Your task to perform on an android device: delete location history Image 0: 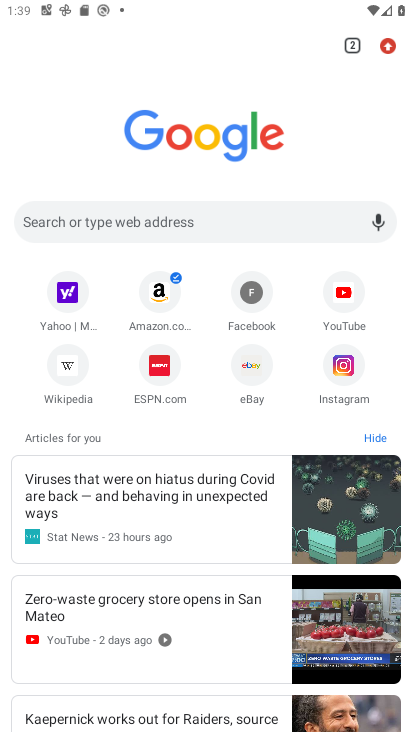
Step 0: press home button
Your task to perform on an android device: delete location history Image 1: 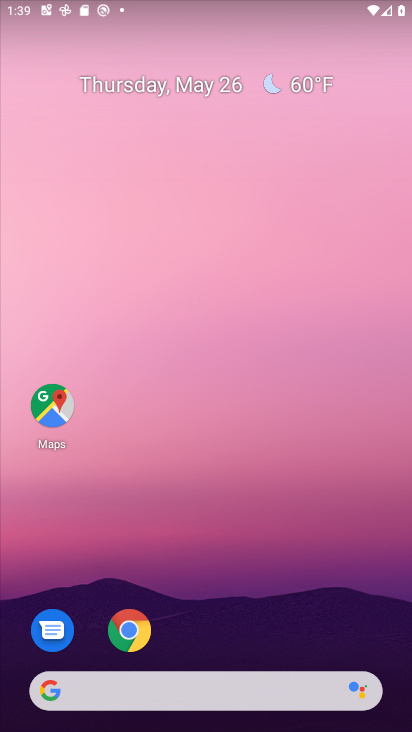
Step 1: drag from (347, 529) to (394, 71)
Your task to perform on an android device: delete location history Image 2: 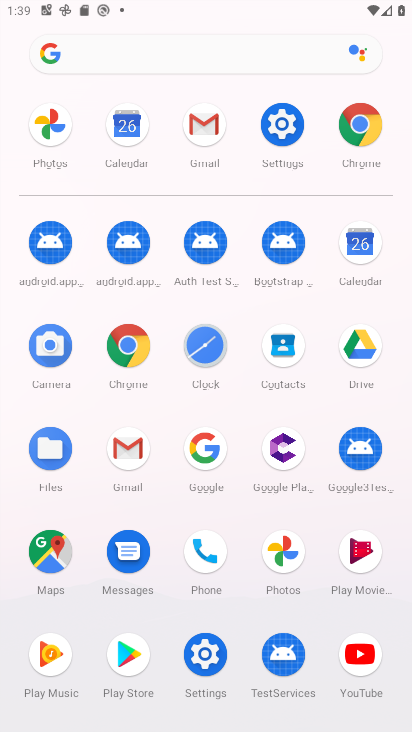
Step 2: drag from (388, 513) to (393, 297)
Your task to perform on an android device: delete location history Image 3: 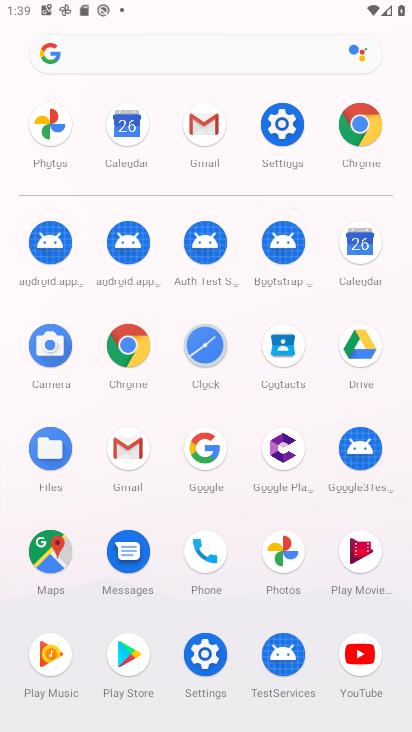
Step 3: click (54, 550)
Your task to perform on an android device: delete location history Image 4: 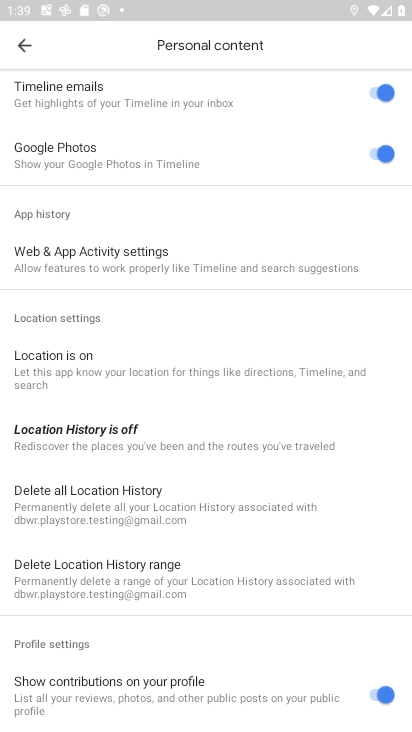
Step 4: drag from (183, 154) to (189, 656)
Your task to perform on an android device: delete location history Image 5: 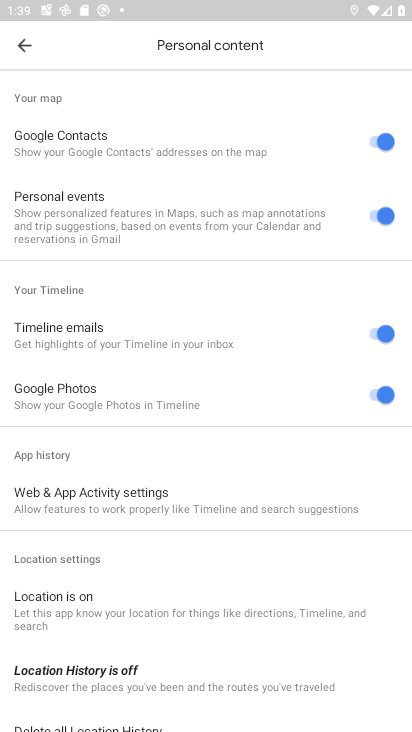
Step 5: drag from (226, 255) to (210, 688)
Your task to perform on an android device: delete location history Image 6: 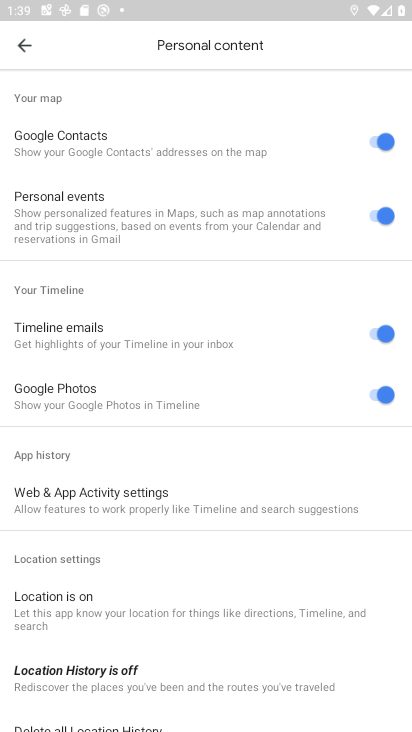
Step 6: click (20, 41)
Your task to perform on an android device: delete location history Image 7: 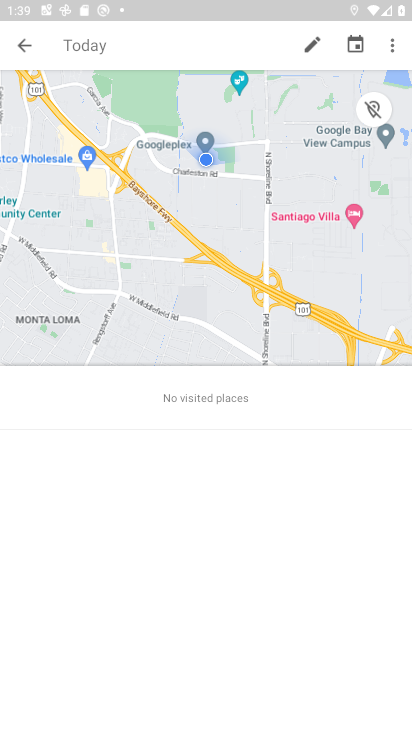
Step 7: click (388, 42)
Your task to perform on an android device: delete location history Image 8: 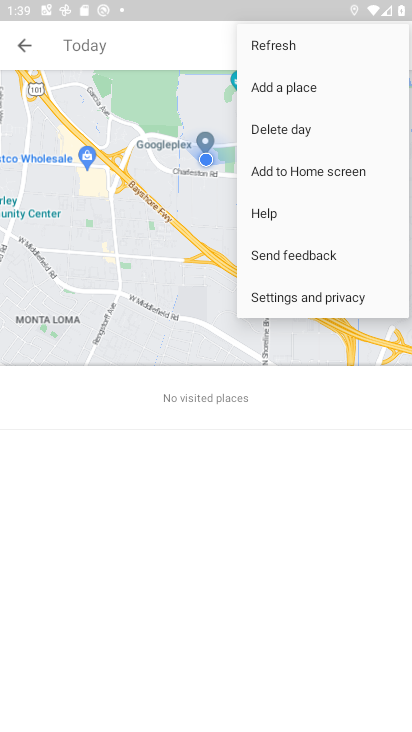
Step 8: click (267, 301)
Your task to perform on an android device: delete location history Image 9: 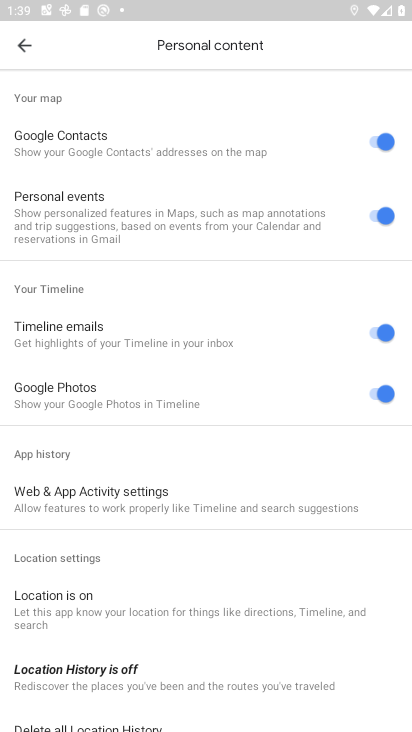
Step 9: drag from (212, 643) to (236, 251)
Your task to perform on an android device: delete location history Image 10: 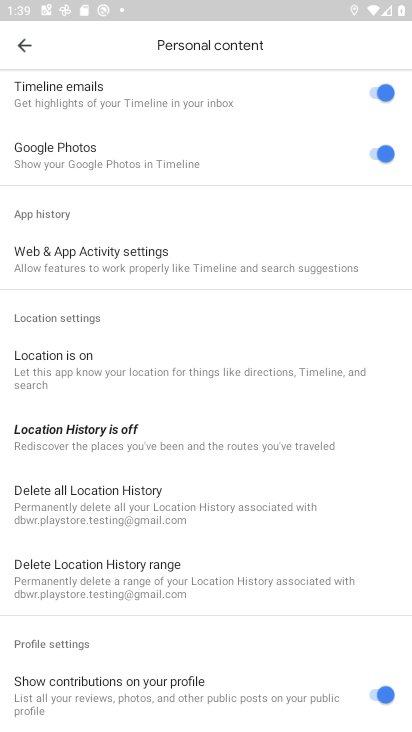
Step 10: click (132, 509)
Your task to perform on an android device: delete location history Image 11: 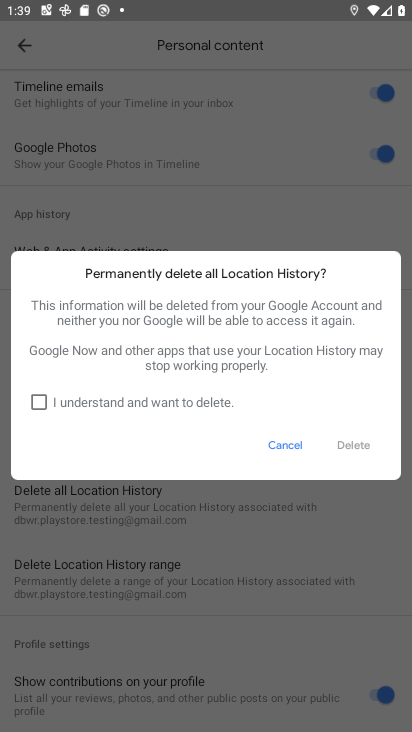
Step 11: click (39, 402)
Your task to perform on an android device: delete location history Image 12: 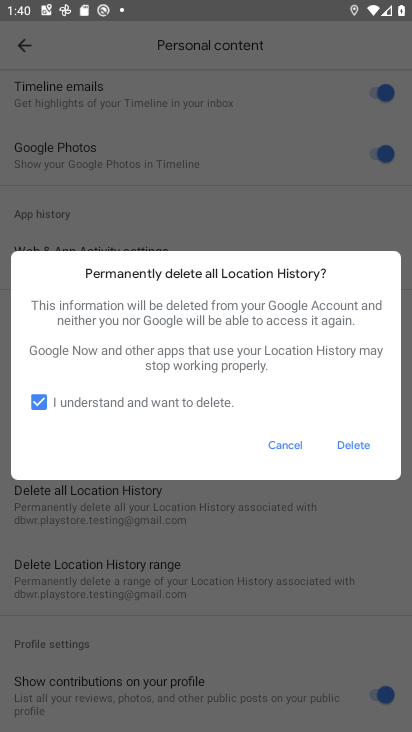
Step 12: click (352, 447)
Your task to perform on an android device: delete location history Image 13: 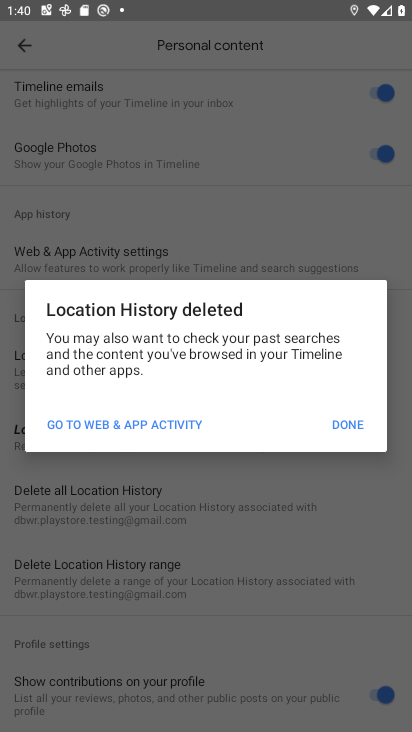
Step 13: click (352, 429)
Your task to perform on an android device: delete location history Image 14: 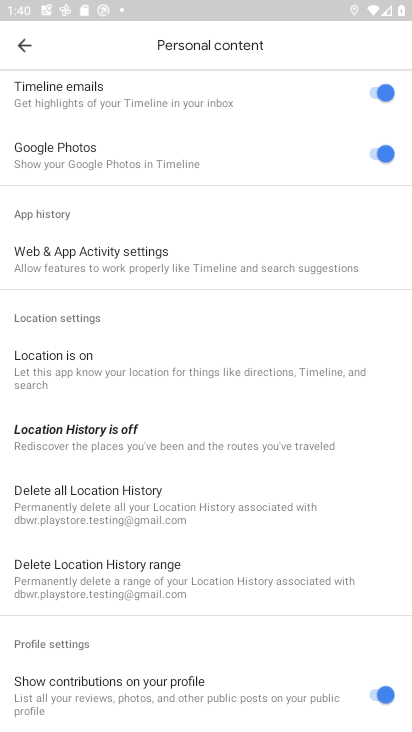
Step 14: click (137, 525)
Your task to perform on an android device: delete location history Image 15: 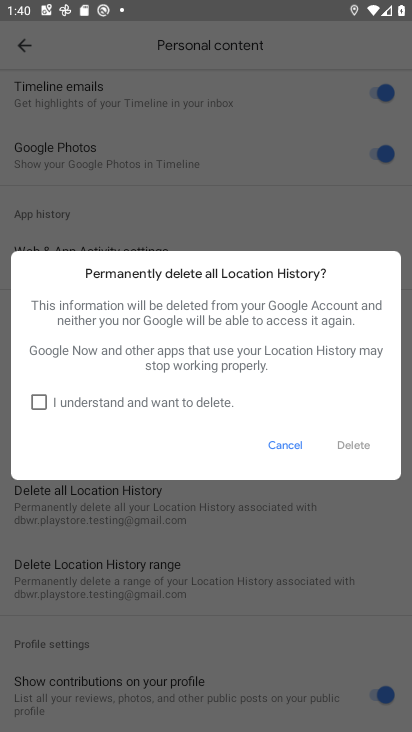
Step 15: click (47, 401)
Your task to perform on an android device: delete location history Image 16: 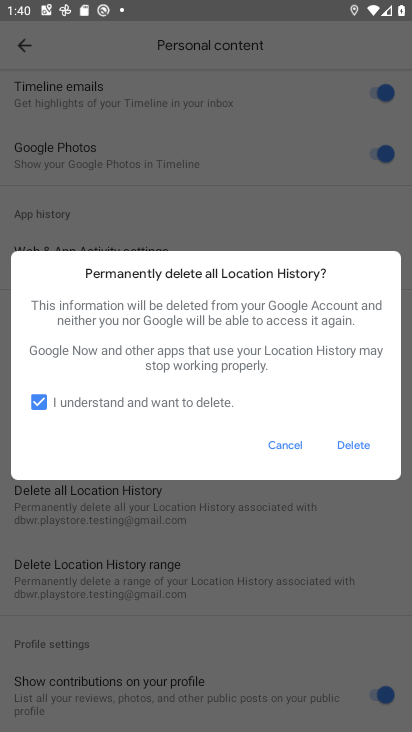
Step 16: click (352, 448)
Your task to perform on an android device: delete location history Image 17: 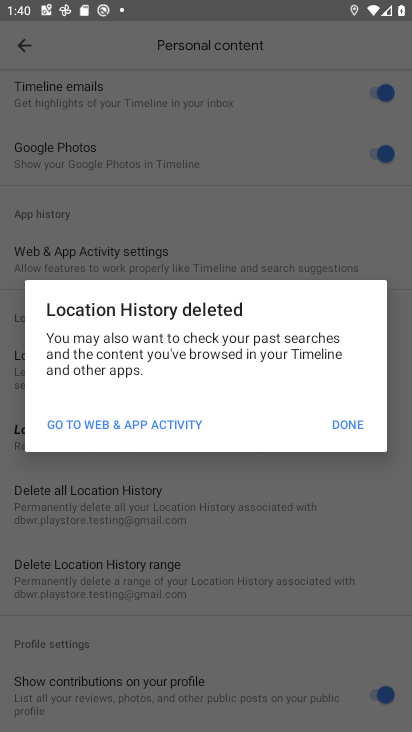
Step 17: task complete